Your task to perform on an android device: Open Google Maps and go to "Timeline" Image 0: 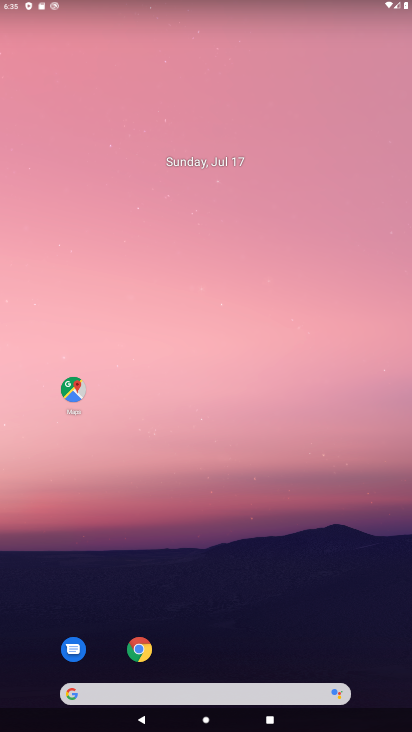
Step 0: click (67, 390)
Your task to perform on an android device: Open Google Maps and go to "Timeline" Image 1: 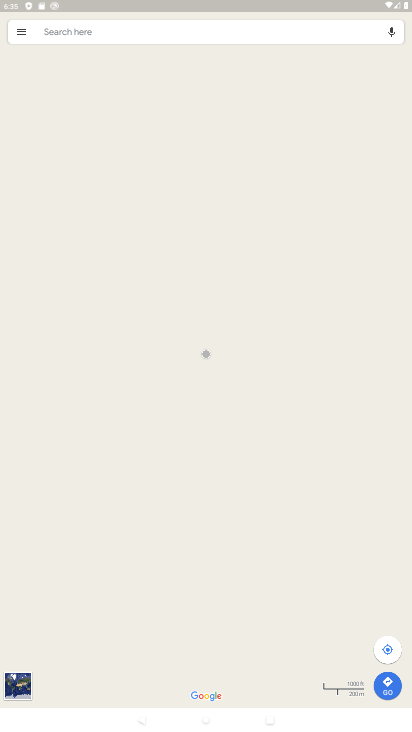
Step 1: click (17, 26)
Your task to perform on an android device: Open Google Maps and go to "Timeline" Image 2: 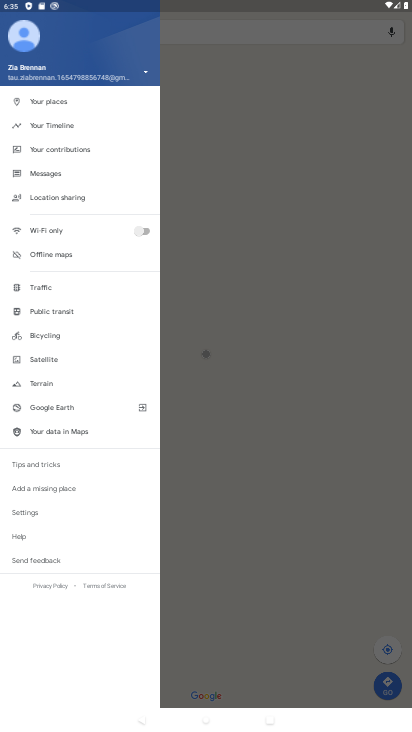
Step 2: click (58, 120)
Your task to perform on an android device: Open Google Maps and go to "Timeline" Image 3: 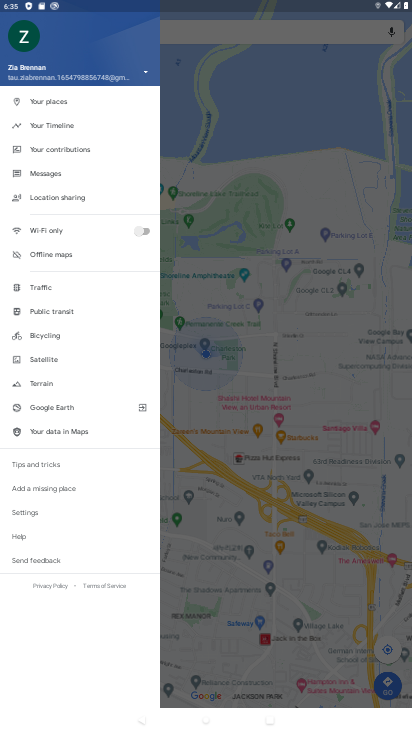
Step 3: click (54, 128)
Your task to perform on an android device: Open Google Maps and go to "Timeline" Image 4: 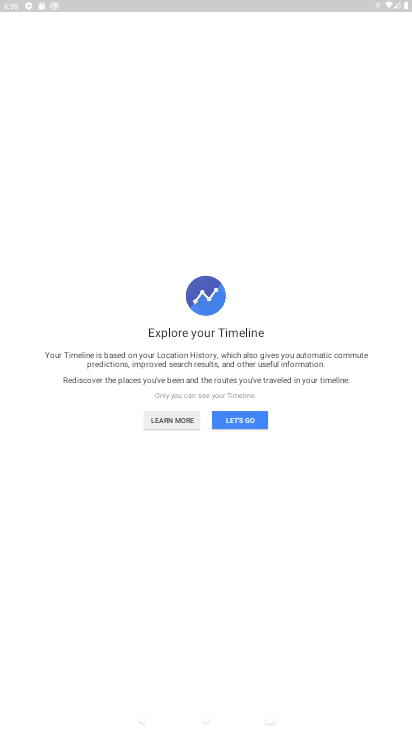
Step 4: click (237, 422)
Your task to perform on an android device: Open Google Maps and go to "Timeline" Image 5: 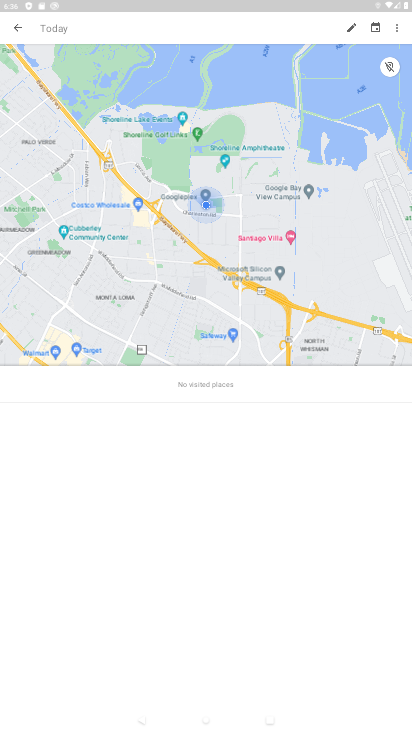
Step 5: task complete